Your task to perform on an android device: see tabs open on other devices in the chrome app Image 0: 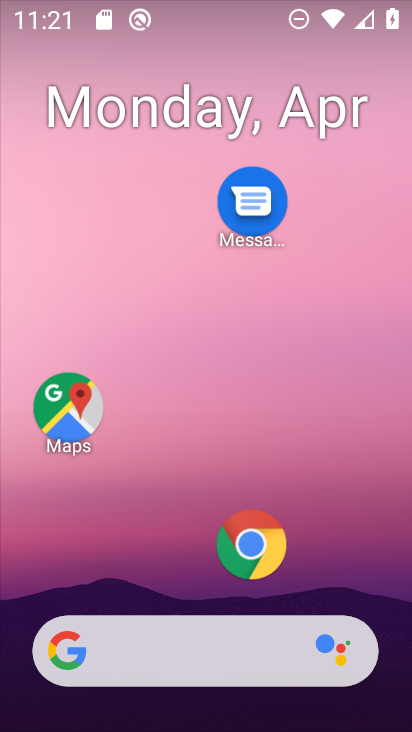
Step 0: click (251, 537)
Your task to perform on an android device: see tabs open on other devices in the chrome app Image 1: 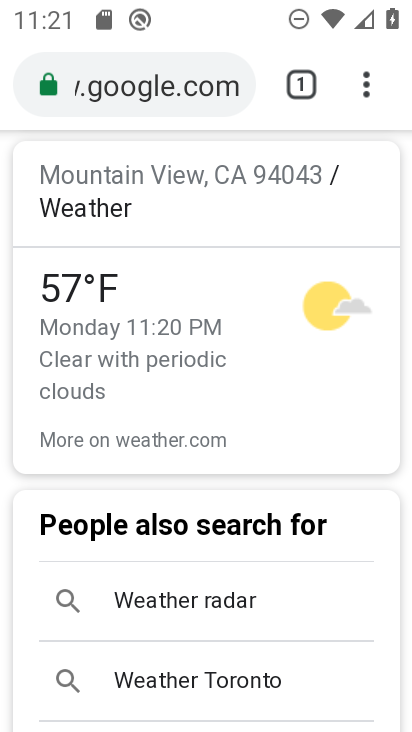
Step 1: click (369, 80)
Your task to perform on an android device: see tabs open on other devices in the chrome app Image 2: 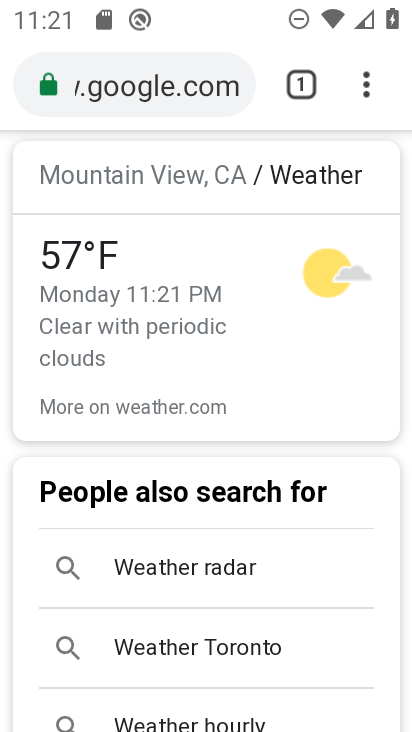
Step 2: click (363, 87)
Your task to perform on an android device: see tabs open on other devices in the chrome app Image 3: 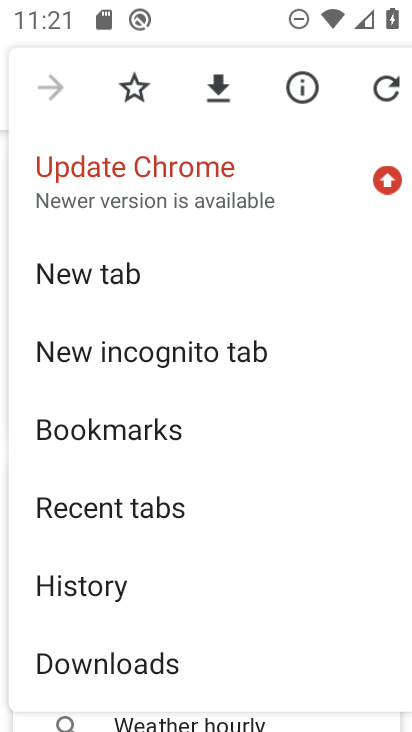
Step 3: click (195, 503)
Your task to perform on an android device: see tabs open on other devices in the chrome app Image 4: 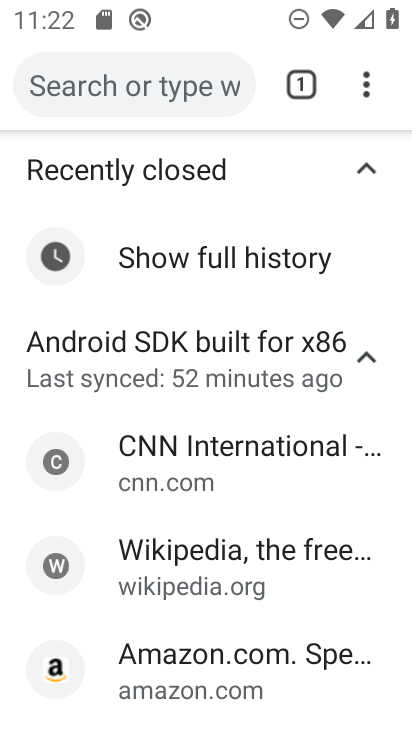
Step 4: task complete